Your task to perform on an android device: empty trash in the gmail app Image 0: 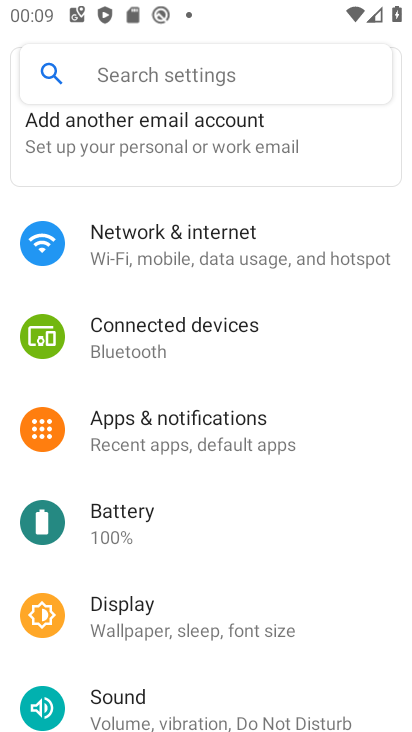
Step 0: press home button
Your task to perform on an android device: empty trash in the gmail app Image 1: 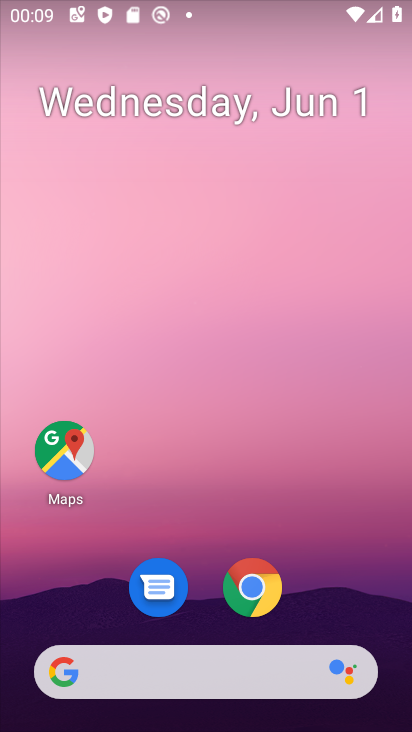
Step 1: drag from (325, 607) to (299, 40)
Your task to perform on an android device: empty trash in the gmail app Image 2: 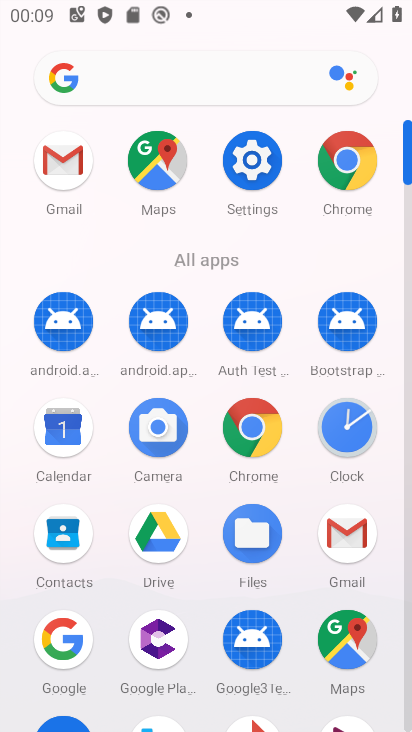
Step 2: drag from (306, 509) to (313, 110)
Your task to perform on an android device: empty trash in the gmail app Image 3: 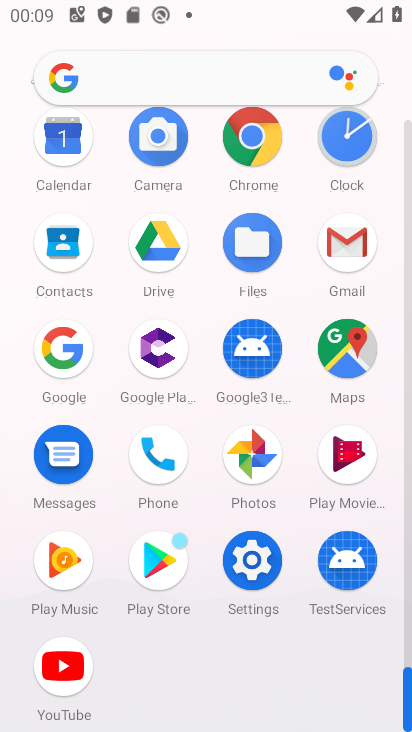
Step 3: click (340, 247)
Your task to perform on an android device: empty trash in the gmail app Image 4: 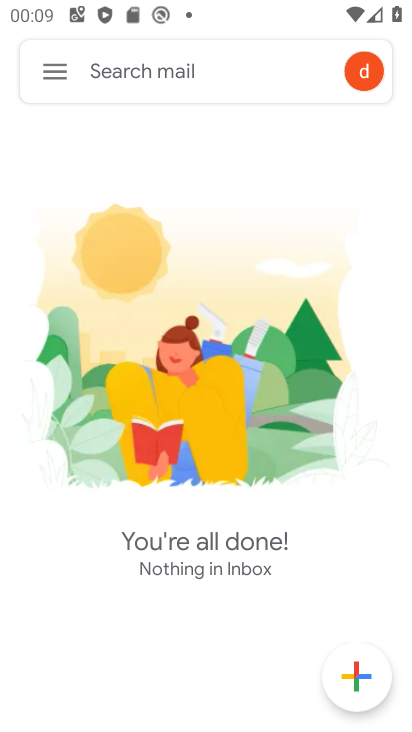
Step 4: click (46, 71)
Your task to perform on an android device: empty trash in the gmail app Image 5: 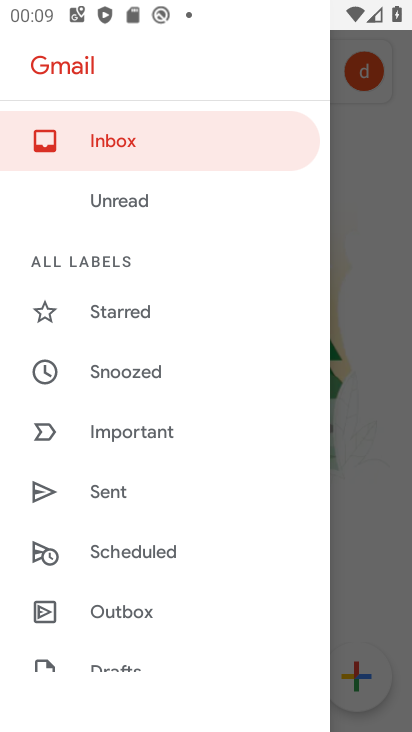
Step 5: drag from (143, 622) to (176, 250)
Your task to perform on an android device: empty trash in the gmail app Image 6: 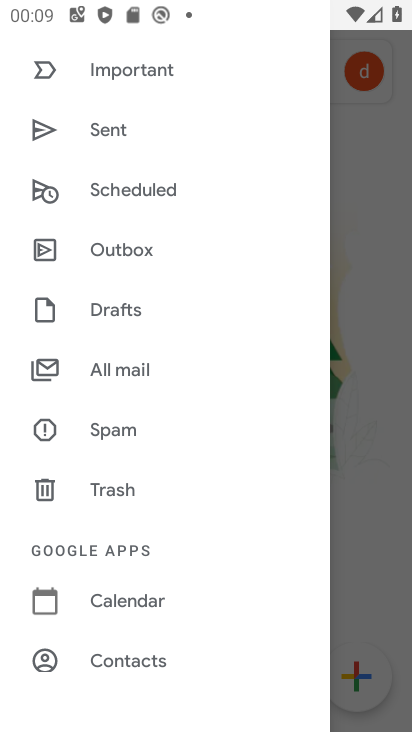
Step 6: click (93, 484)
Your task to perform on an android device: empty trash in the gmail app Image 7: 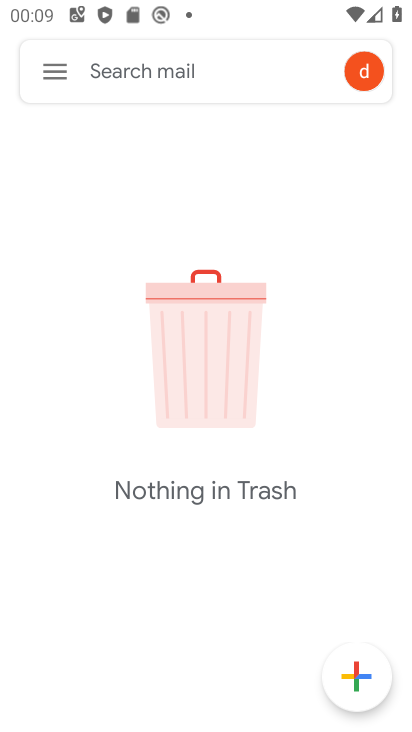
Step 7: task complete